Your task to perform on an android device: turn pop-ups off in chrome Image 0: 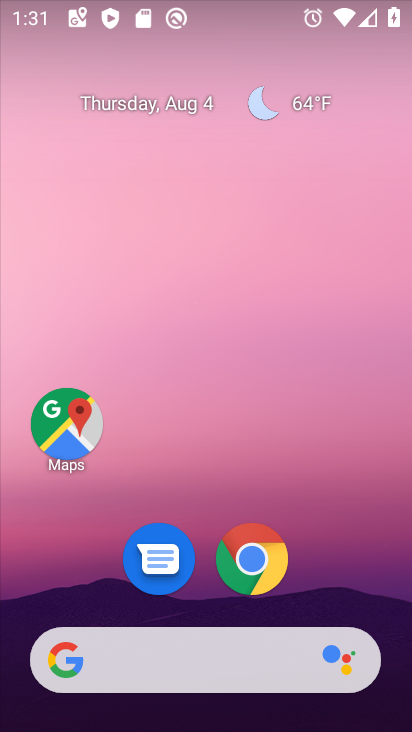
Step 0: click (251, 563)
Your task to perform on an android device: turn pop-ups off in chrome Image 1: 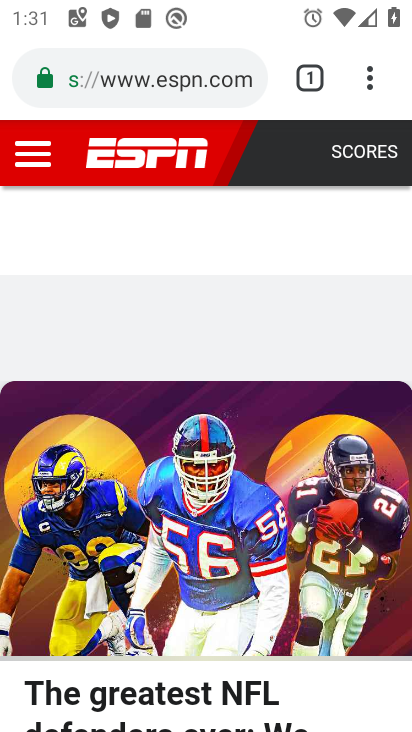
Step 1: click (370, 80)
Your task to perform on an android device: turn pop-ups off in chrome Image 2: 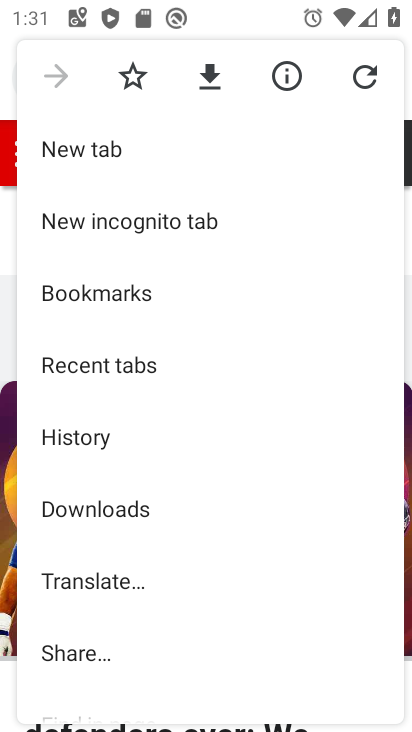
Step 2: drag from (119, 553) to (128, 457)
Your task to perform on an android device: turn pop-ups off in chrome Image 3: 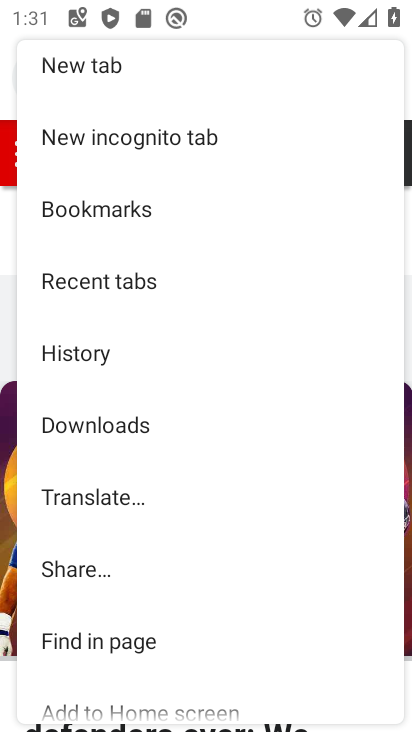
Step 3: drag from (83, 543) to (115, 421)
Your task to perform on an android device: turn pop-ups off in chrome Image 4: 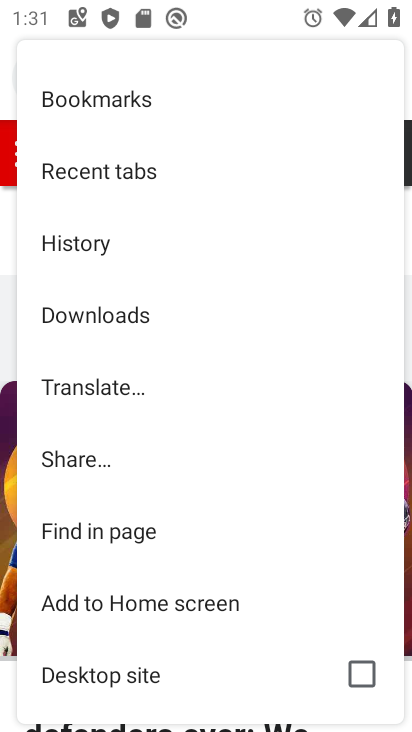
Step 4: drag from (102, 504) to (79, 380)
Your task to perform on an android device: turn pop-ups off in chrome Image 5: 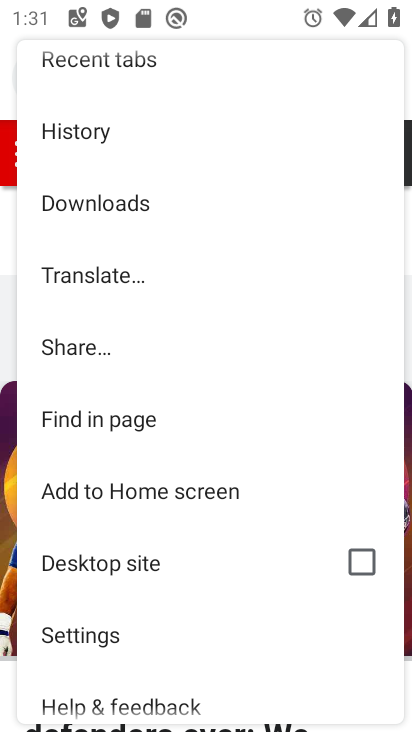
Step 5: drag from (72, 469) to (68, 344)
Your task to perform on an android device: turn pop-ups off in chrome Image 6: 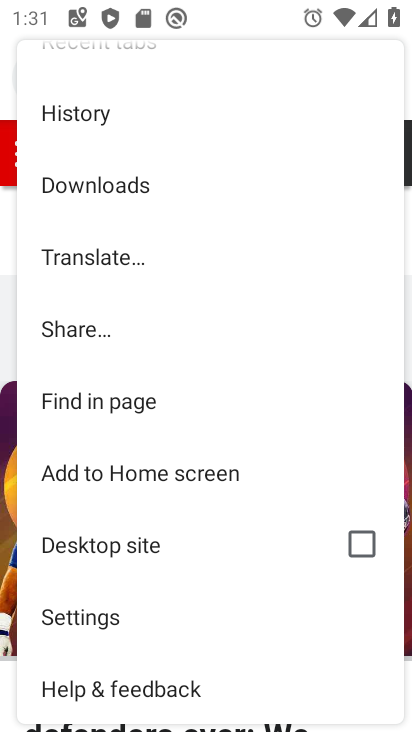
Step 6: click (77, 619)
Your task to perform on an android device: turn pop-ups off in chrome Image 7: 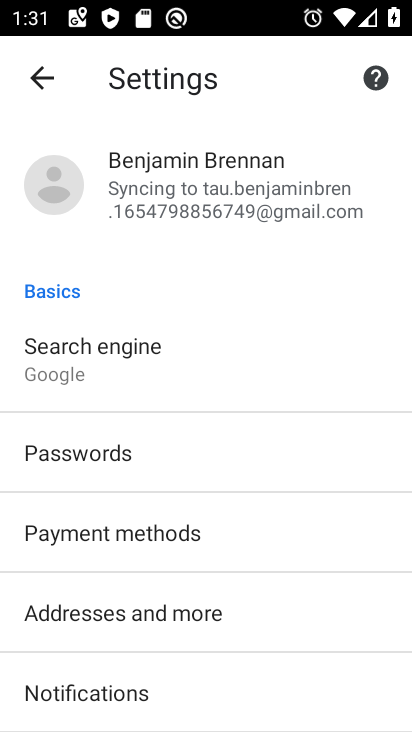
Step 7: drag from (88, 566) to (74, 421)
Your task to perform on an android device: turn pop-ups off in chrome Image 8: 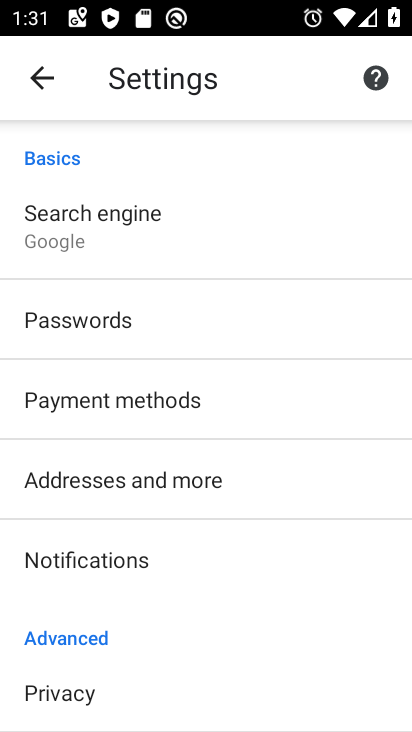
Step 8: drag from (90, 589) to (90, 430)
Your task to perform on an android device: turn pop-ups off in chrome Image 9: 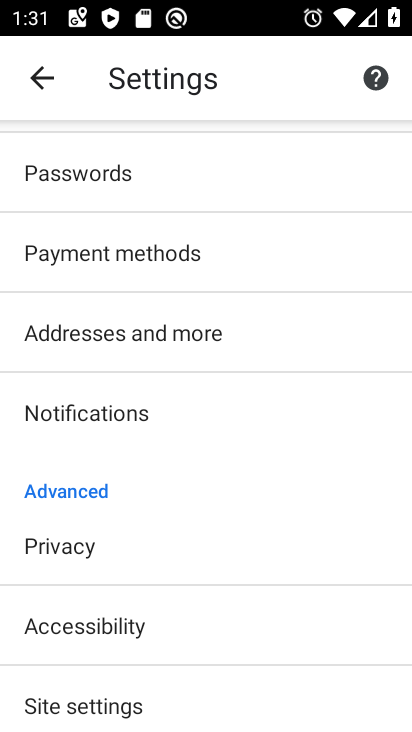
Step 9: drag from (92, 587) to (74, 482)
Your task to perform on an android device: turn pop-ups off in chrome Image 10: 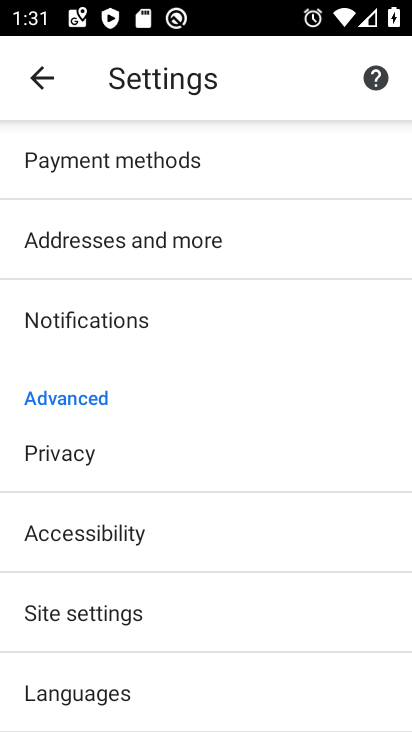
Step 10: click (86, 617)
Your task to perform on an android device: turn pop-ups off in chrome Image 11: 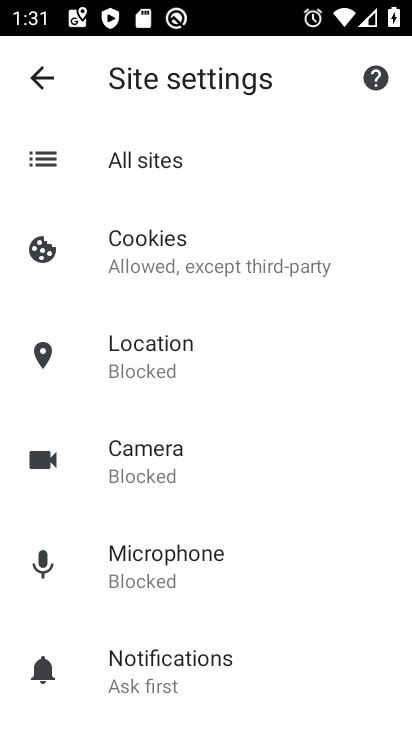
Step 11: drag from (148, 604) to (191, 518)
Your task to perform on an android device: turn pop-ups off in chrome Image 12: 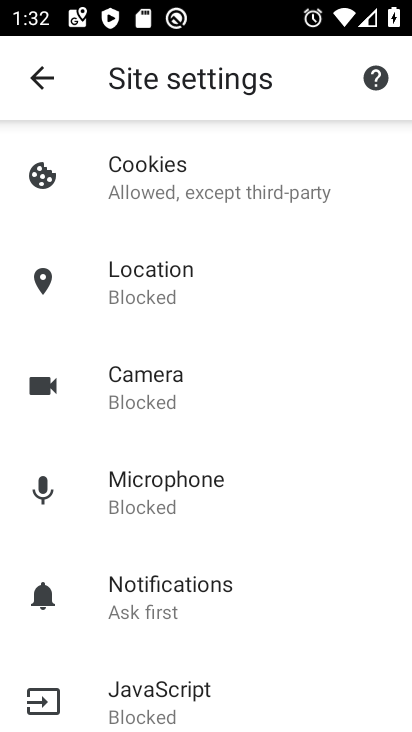
Step 12: drag from (135, 625) to (193, 478)
Your task to perform on an android device: turn pop-ups off in chrome Image 13: 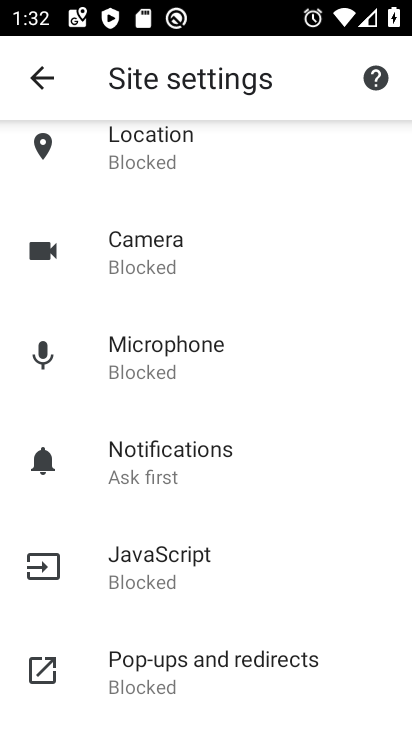
Step 13: click (143, 670)
Your task to perform on an android device: turn pop-ups off in chrome Image 14: 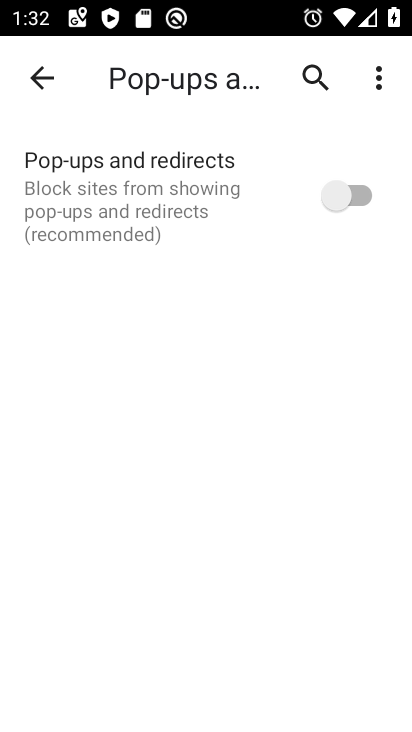
Step 14: task complete